Your task to perform on an android device: toggle airplane mode Image 0: 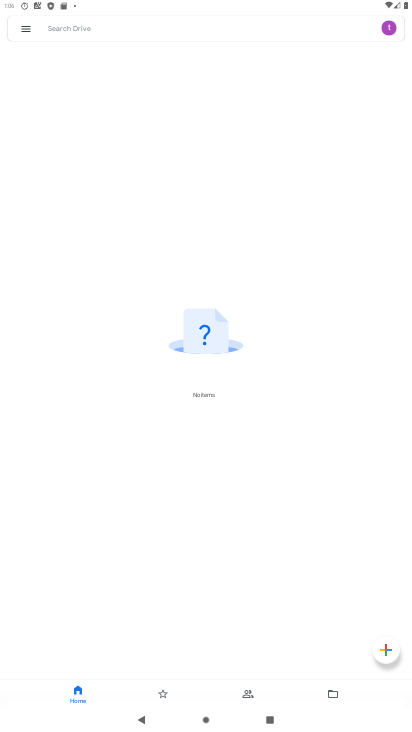
Step 0: press home button
Your task to perform on an android device: toggle airplane mode Image 1: 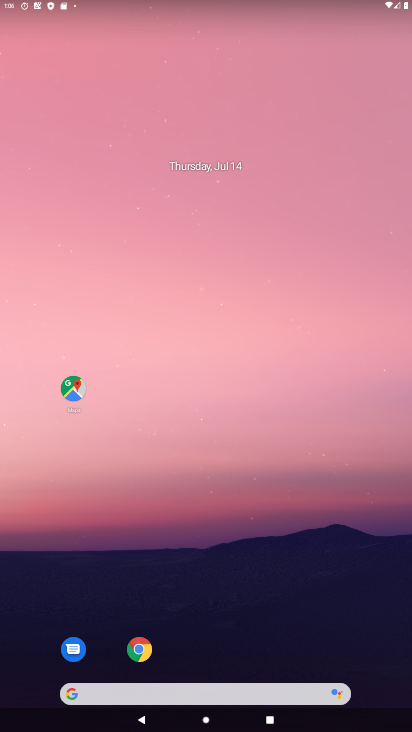
Step 1: drag from (266, 654) to (296, 100)
Your task to perform on an android device: toggle airplane mode Image 2: 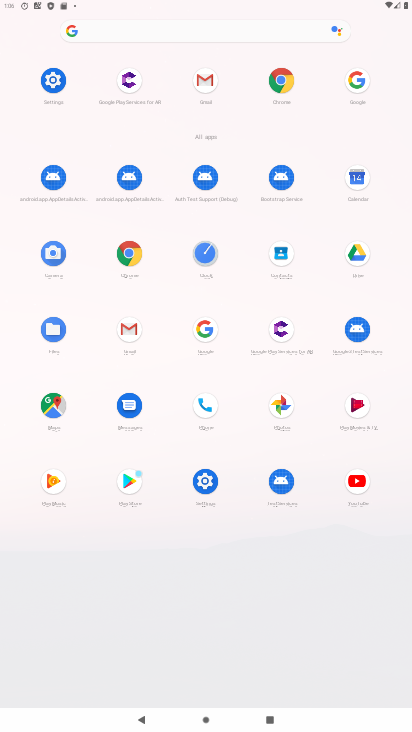
Step 2: click (200, 484)
Your task to perform on an android device: toggle airplane mode Image 3: 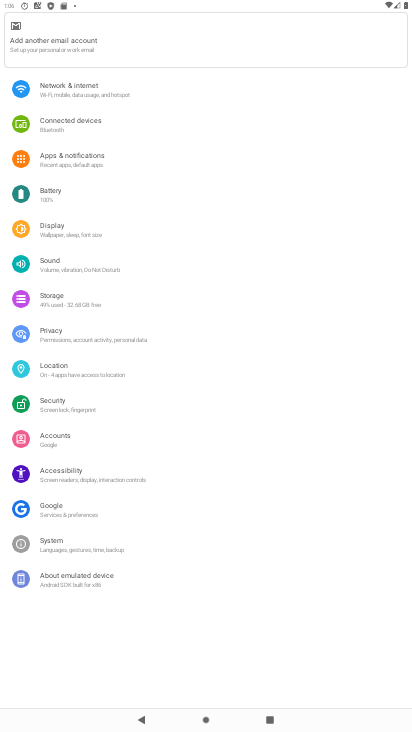
Step 3: click (59, 87)
Your task to perform on an android device: toggle airplane mode Image 4: 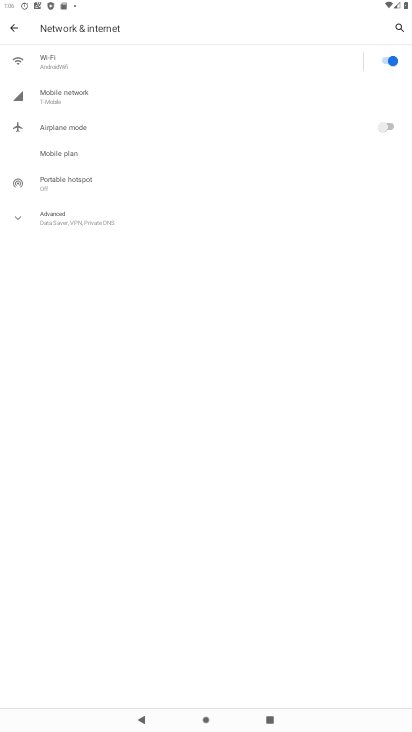
Step 4: click (389, 122)
Your task to perform on an android device: toggle airplane mode Image 5: 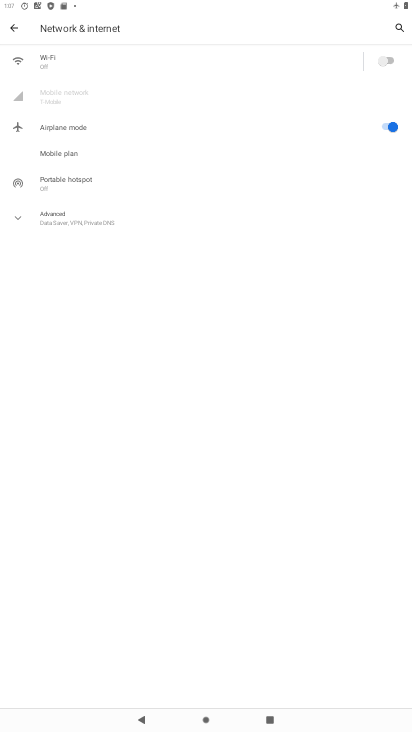
Step 5: task complete